Your task to perform on an android device: turn on translation in the chrome app Image 0: 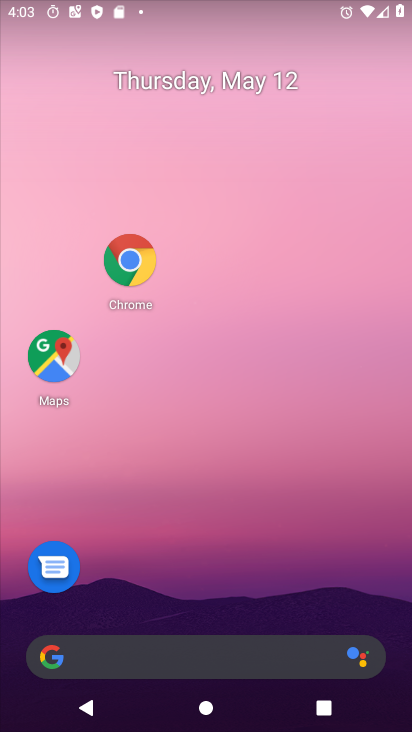
Step 0: drag from (233, 626) to (232, 156)
Your task to perform on an android device: turn on translation in the chrome app Image 1: 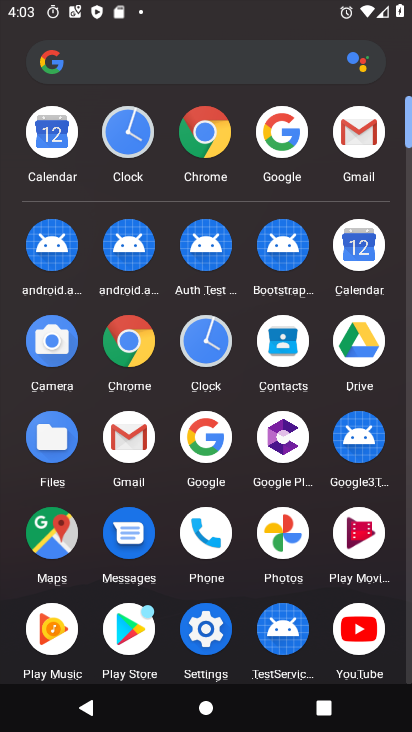
Step 1: click (197, 143)
Your task to perform on an android device: turn on translation in the chrome app Image 2: 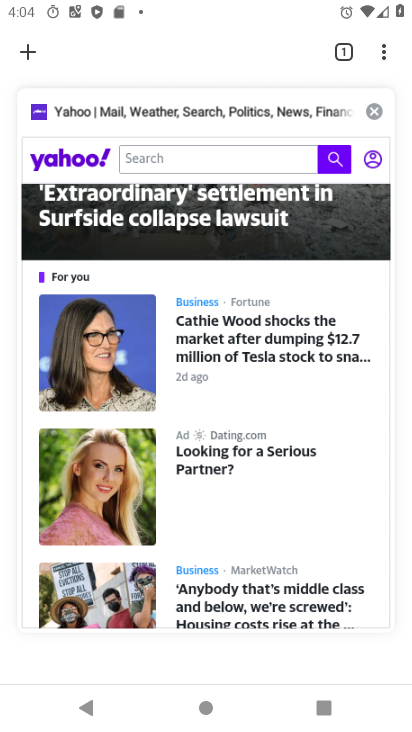
Step 2: click (390, 45)
Your task to perform on an android device: turn on translation in the chrome app Image 3: 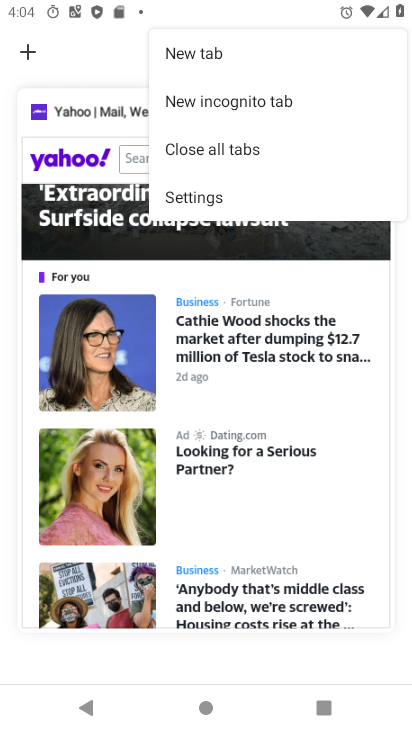
Step 3: click (210, 191)
Your task to perform on an android device: turn on translation in the chrome app Image 4: 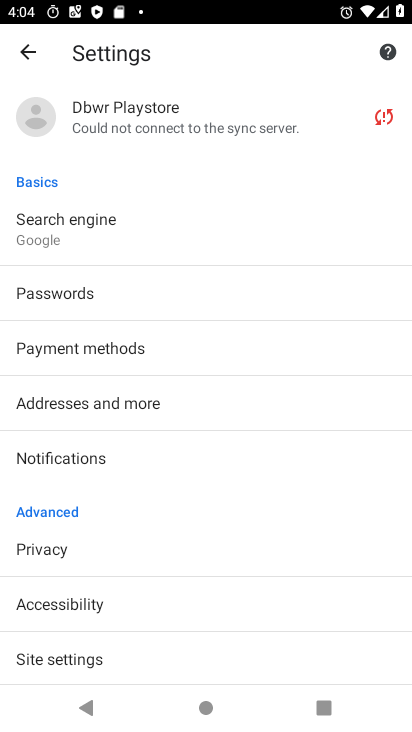
Step 4: drag from (176, 646) to (162, 297)
Your task to perform on an android device: turn on translation in the chrome app Image 5: 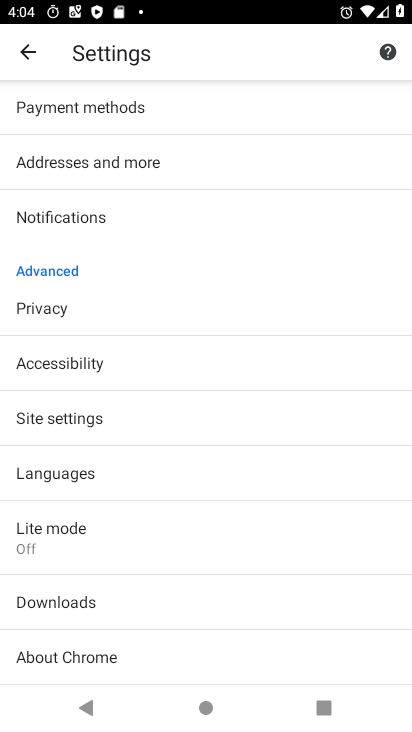
Step 5: click (50, 482)
Your task to perform on an android device: turn on translation in the chrome app Image 6: 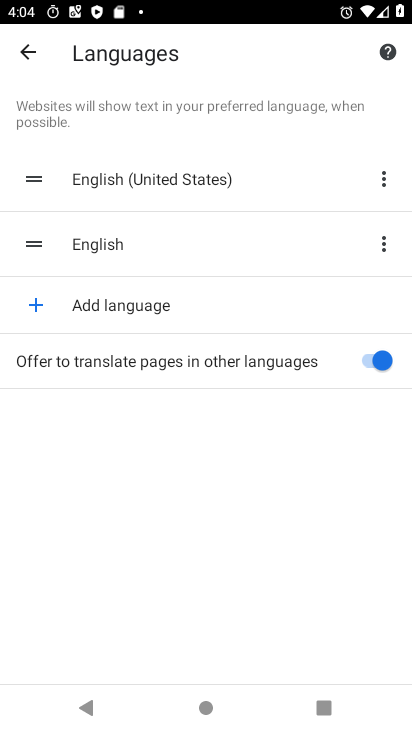
Step 6: task complete